Your task to perform on an android device: turn off improve location accuracy Image 0: 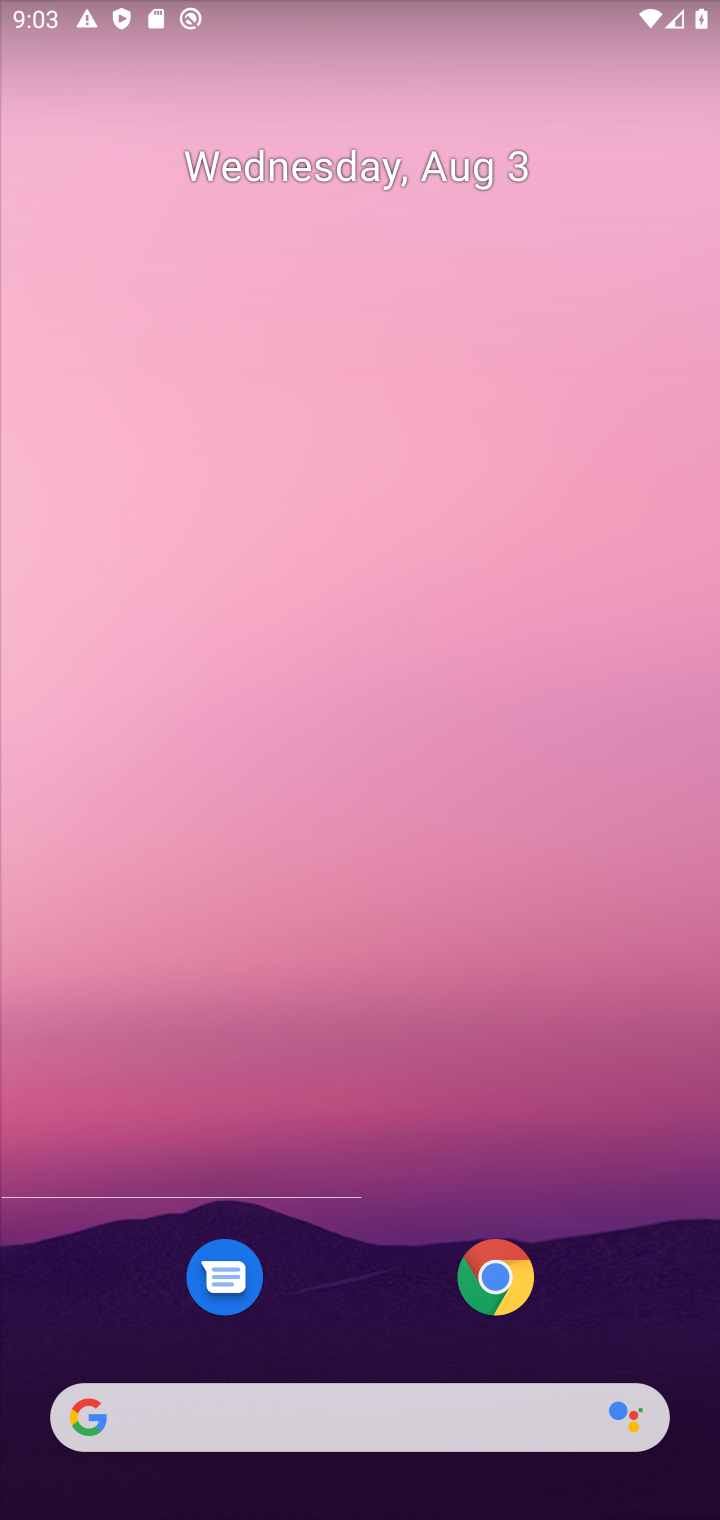
Step 0: press home button
Your task to perform on an android device: turn off improve location accuracy Image 1: 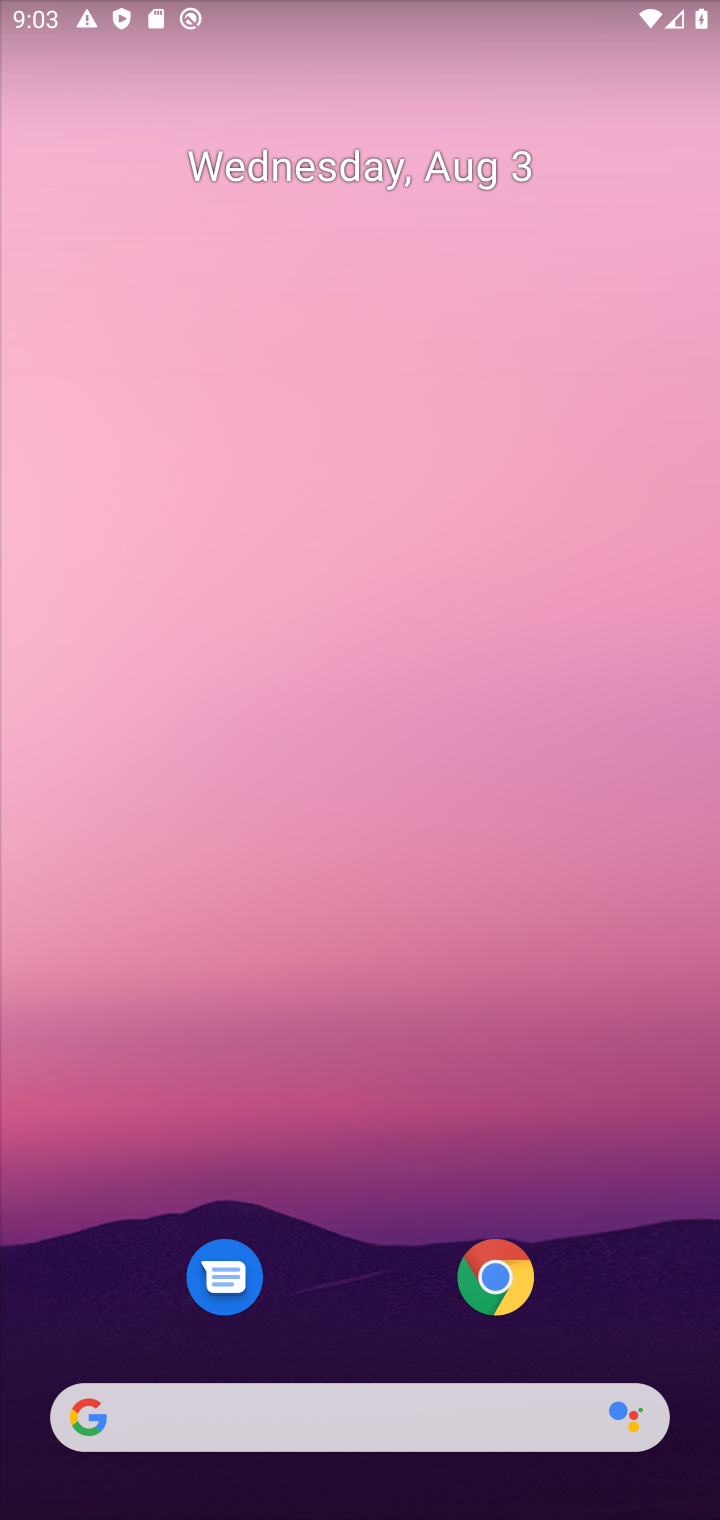
Step 1: drag from (587, 903) to (616, 291)
Your task to perform on an android device: turn off improve location accuracy Image 2: 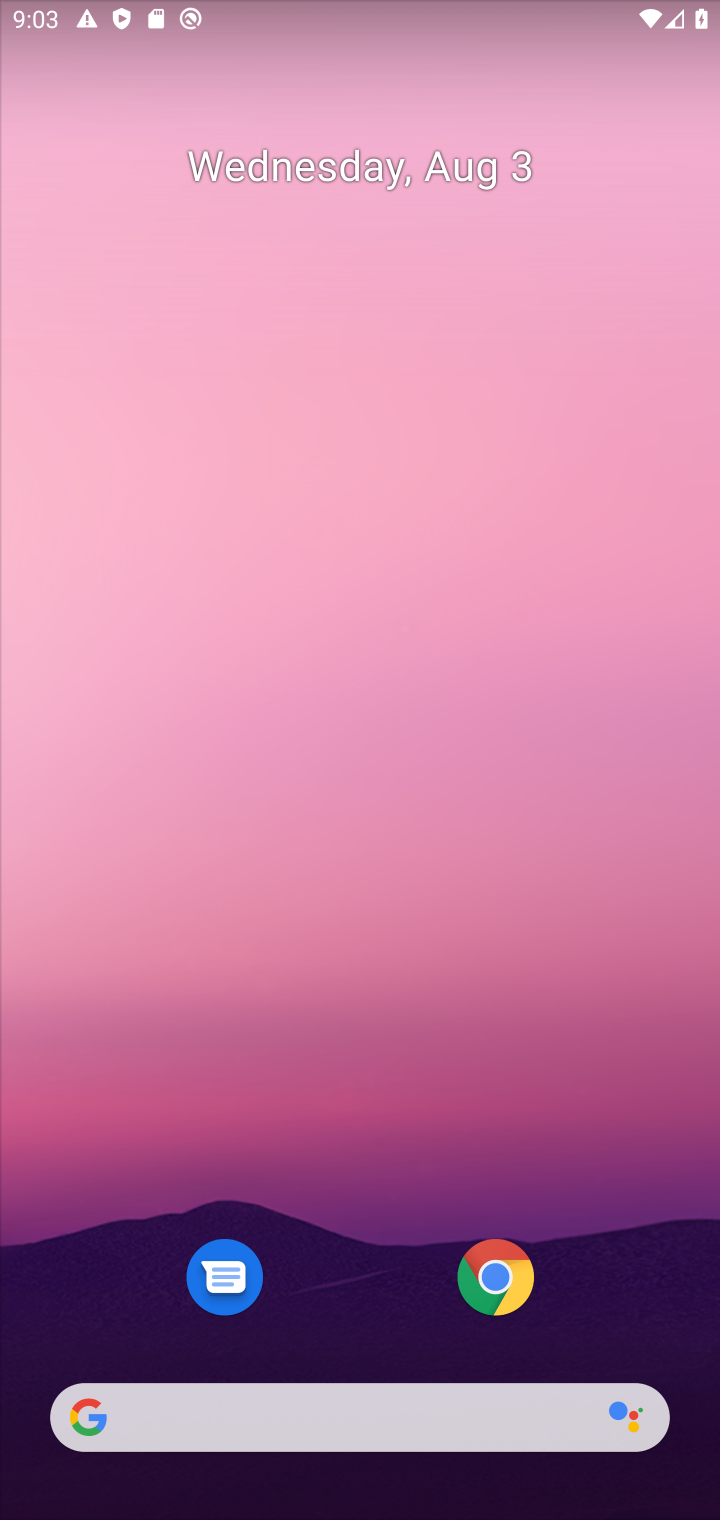
Step 2: drag from (363, 1259) to (427, 256)
Your task to perform on an android device: turn off improve location accuracy Image 3: 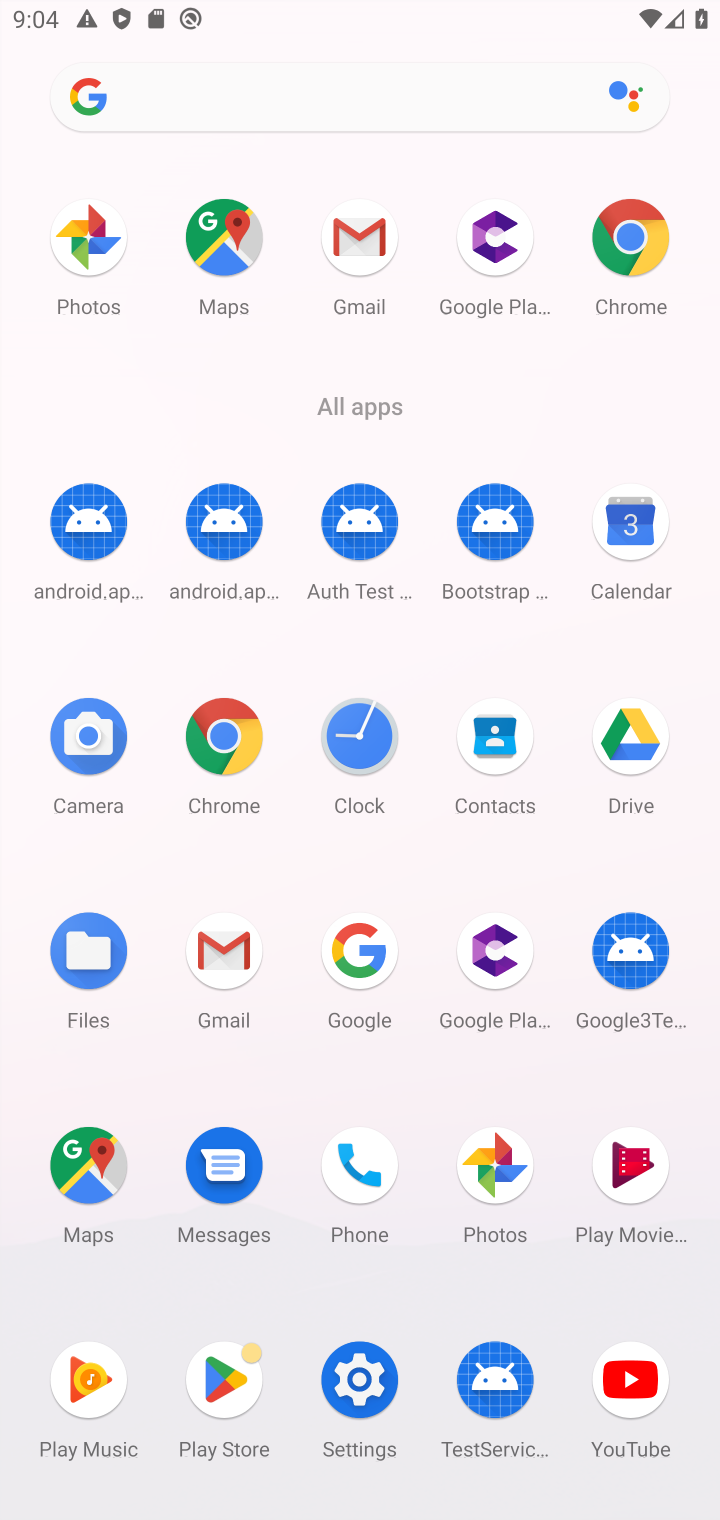
Step 3: click (365, 1401)
Your task to perform on an android device: turn off improve location accuracy Image 4: 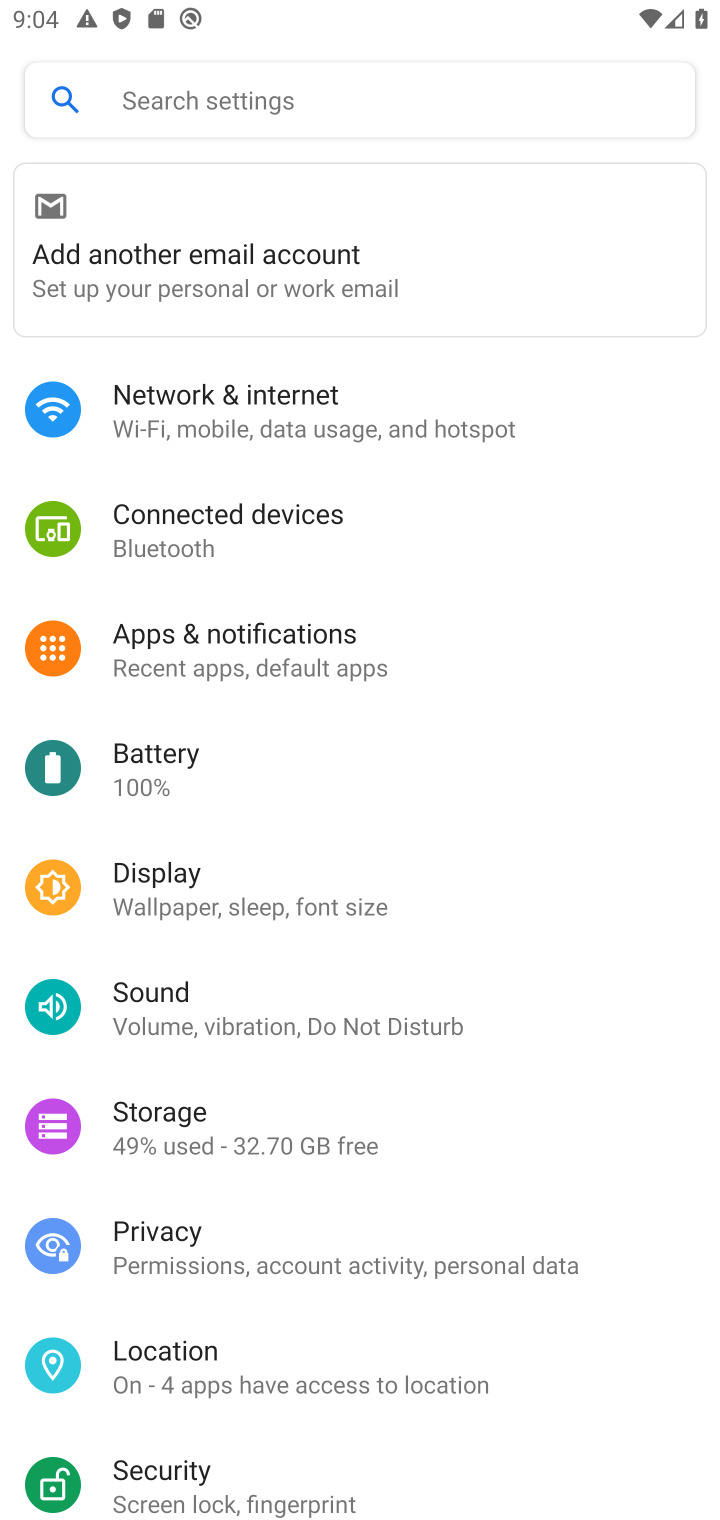
Step 4: drag from (626, 1368) to (657, 1005)
Your task to perform on an android device: turn off improve location accuracy Image 5: 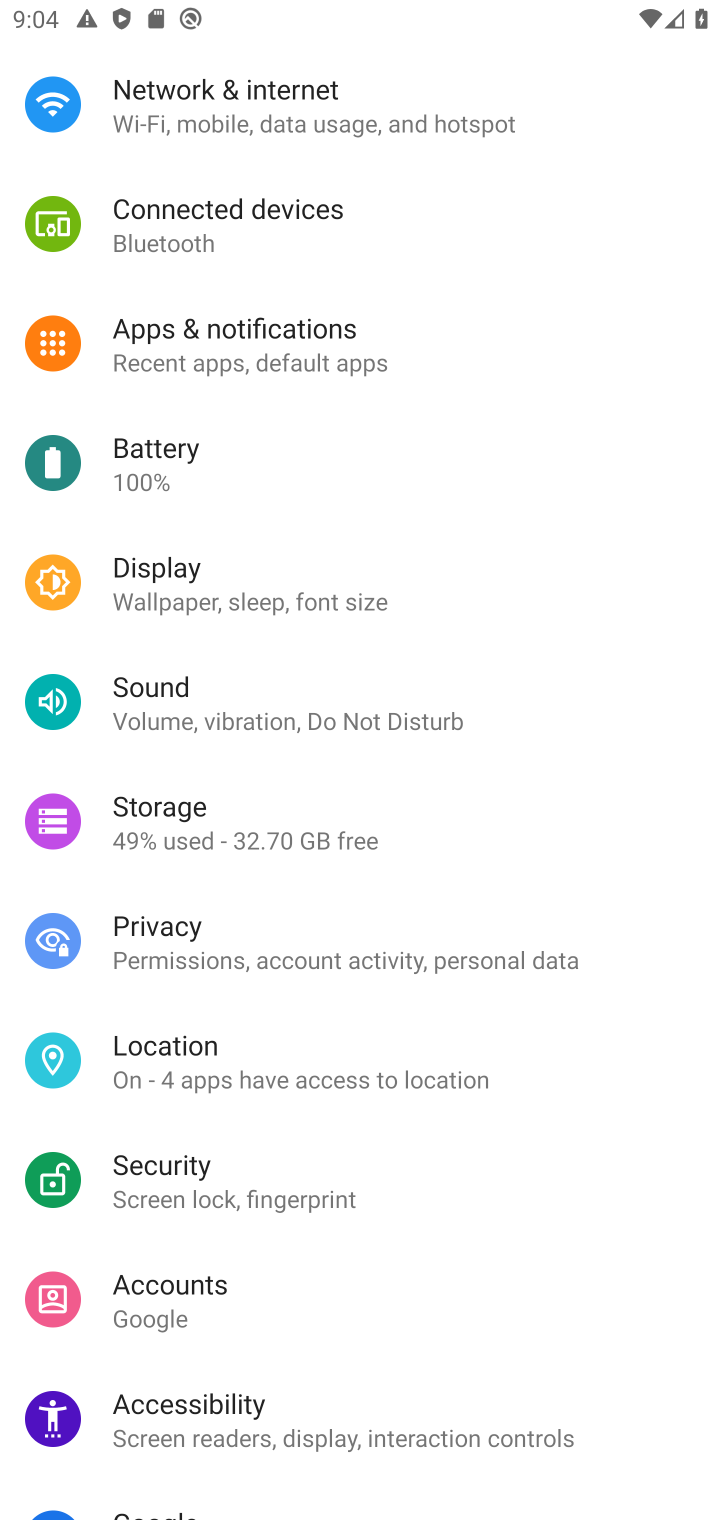
Step 5: drag from (566, 1260) to (581, 778)
Your task to perform on an android device: turn off improve location accuracy Image 6: 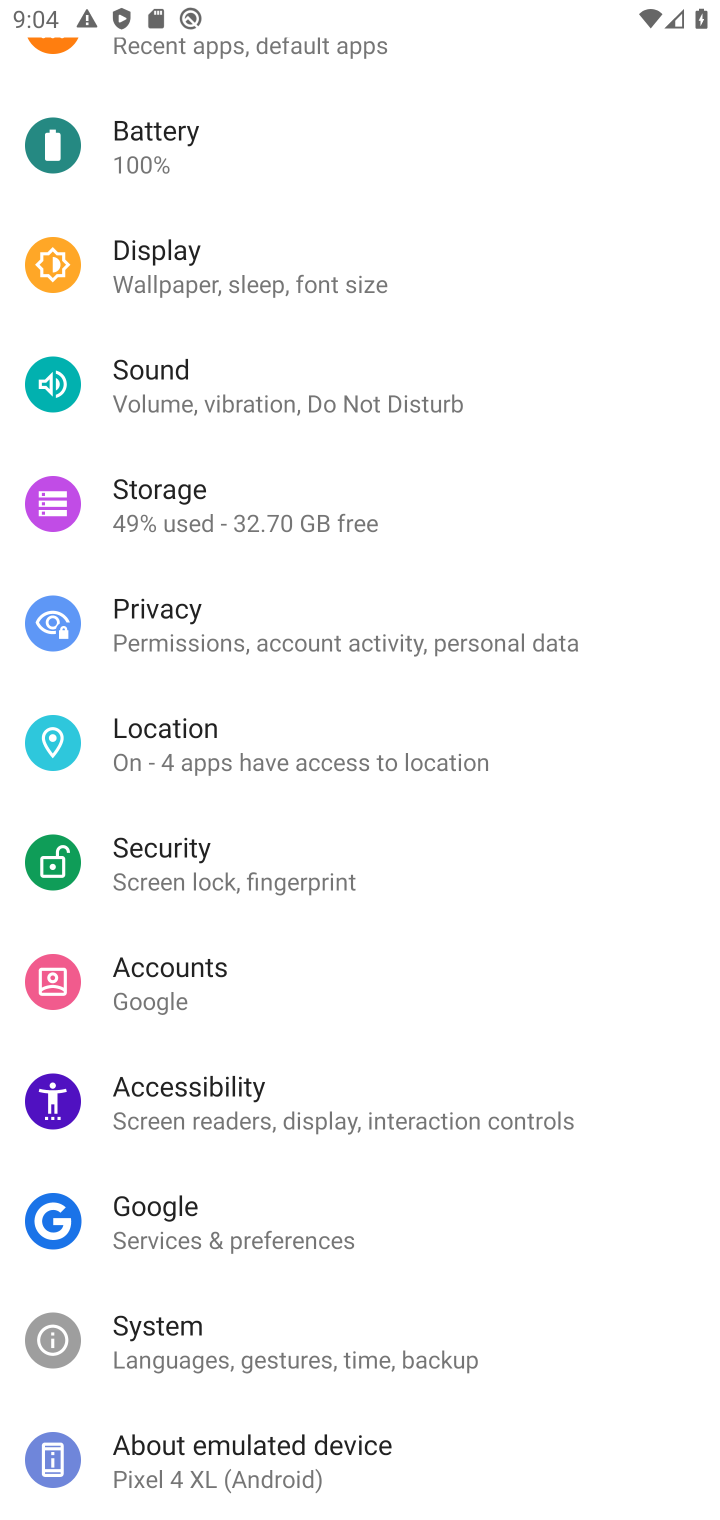
Step 6: click (447, 741)
Your task to perform on an android device: turn off improve location accuracy Image 7: 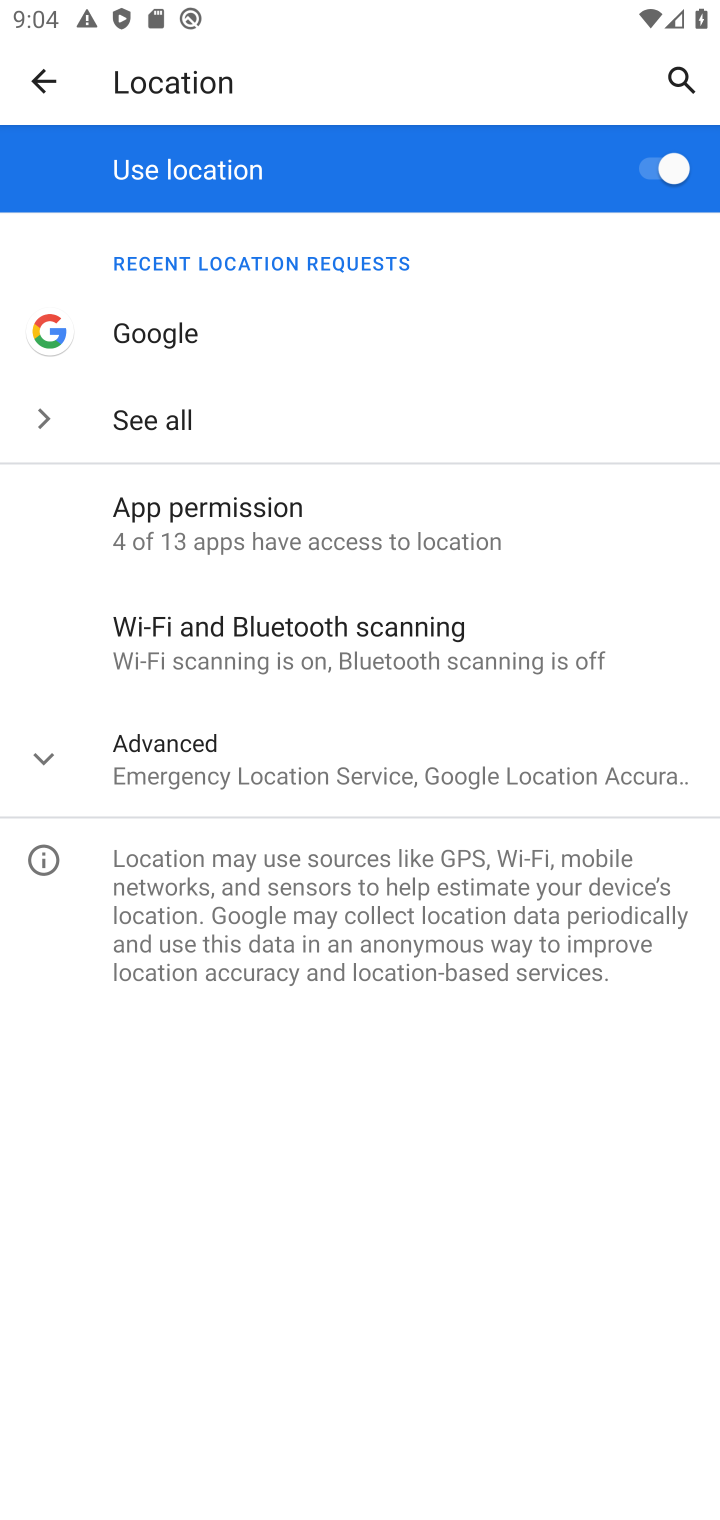
Step 7: click (399, 766)
Your task to perform on an android device: turn off improve location accuracy Image 8: 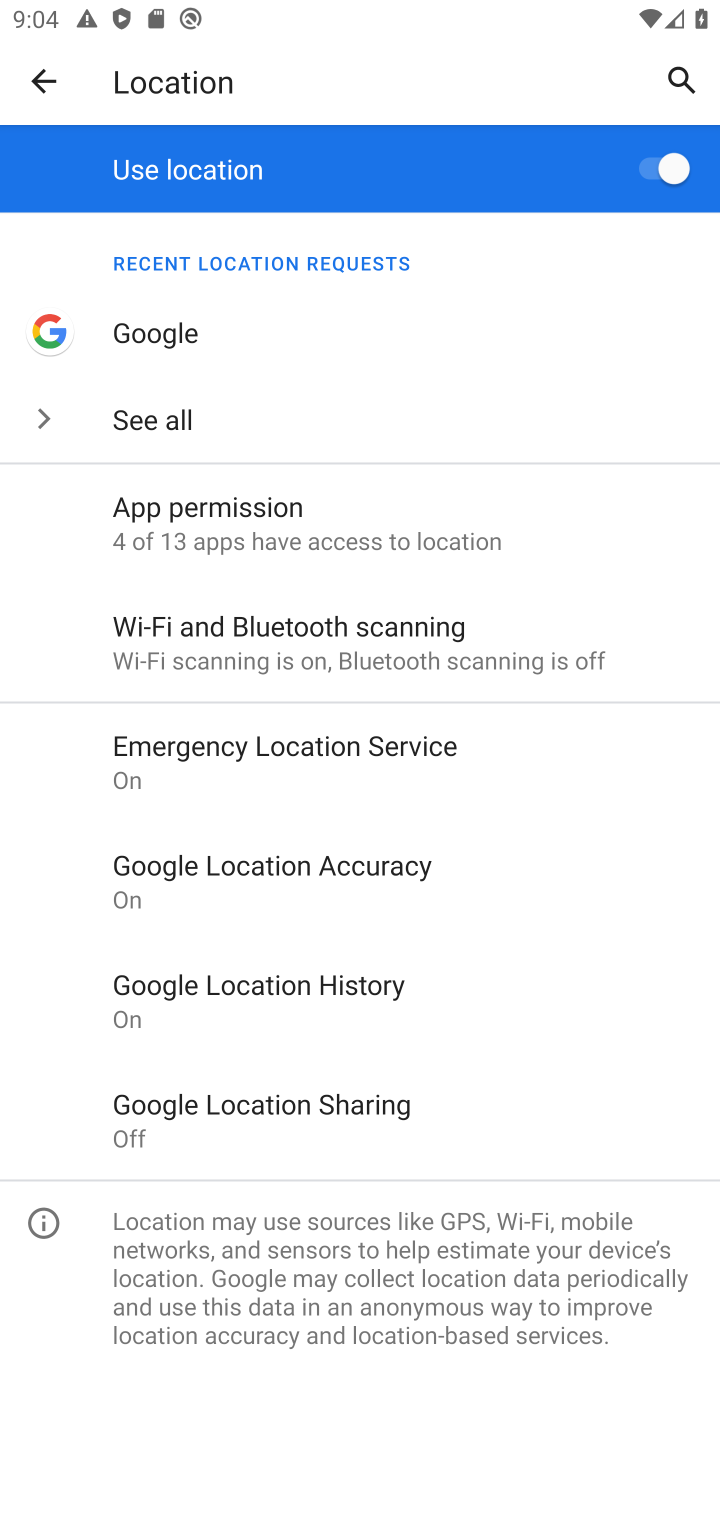
Step 8: click (330, 874)
Your task to perform on an android device: turn off improve location accuracy Image 9: 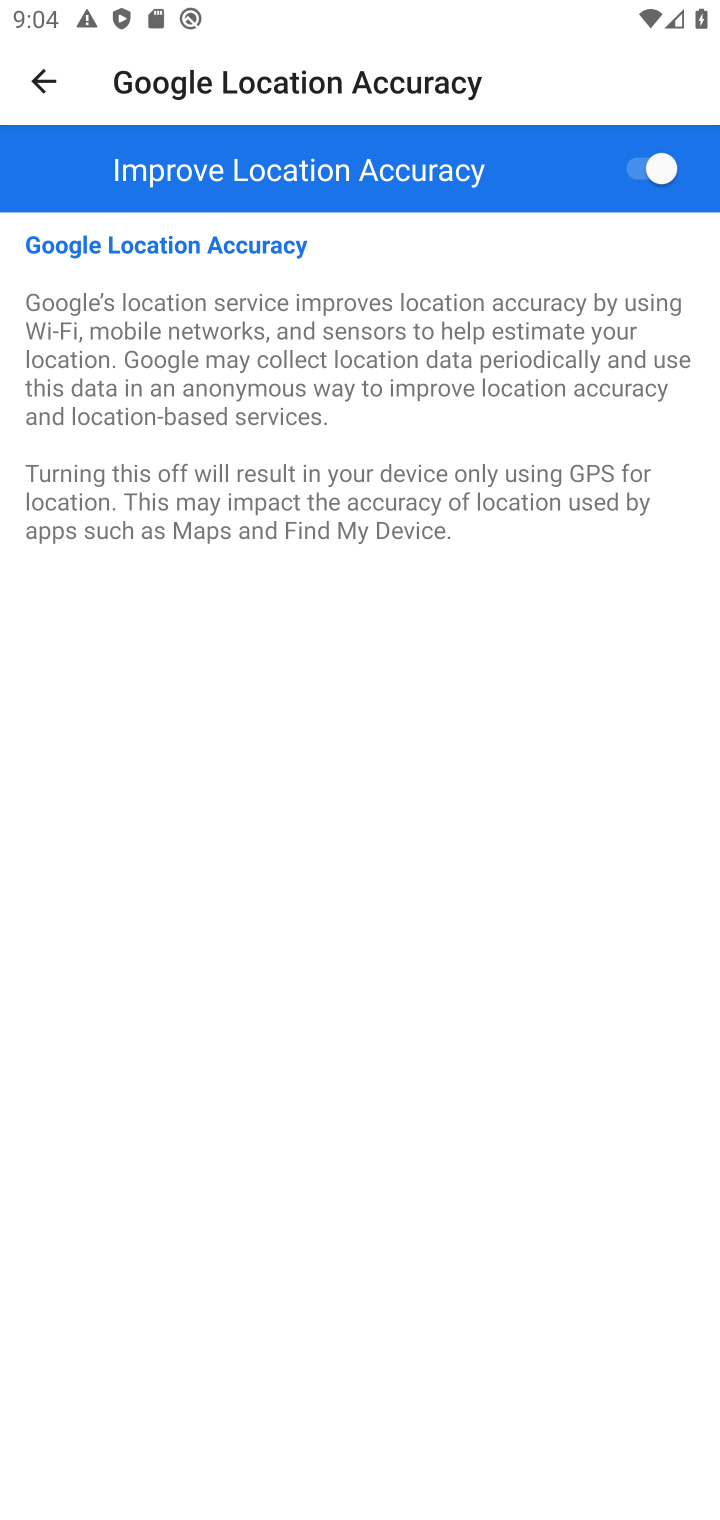
Step 9: click (656, 170)
Your task to perform on an android device: turn off improve location accuracy Image 10: 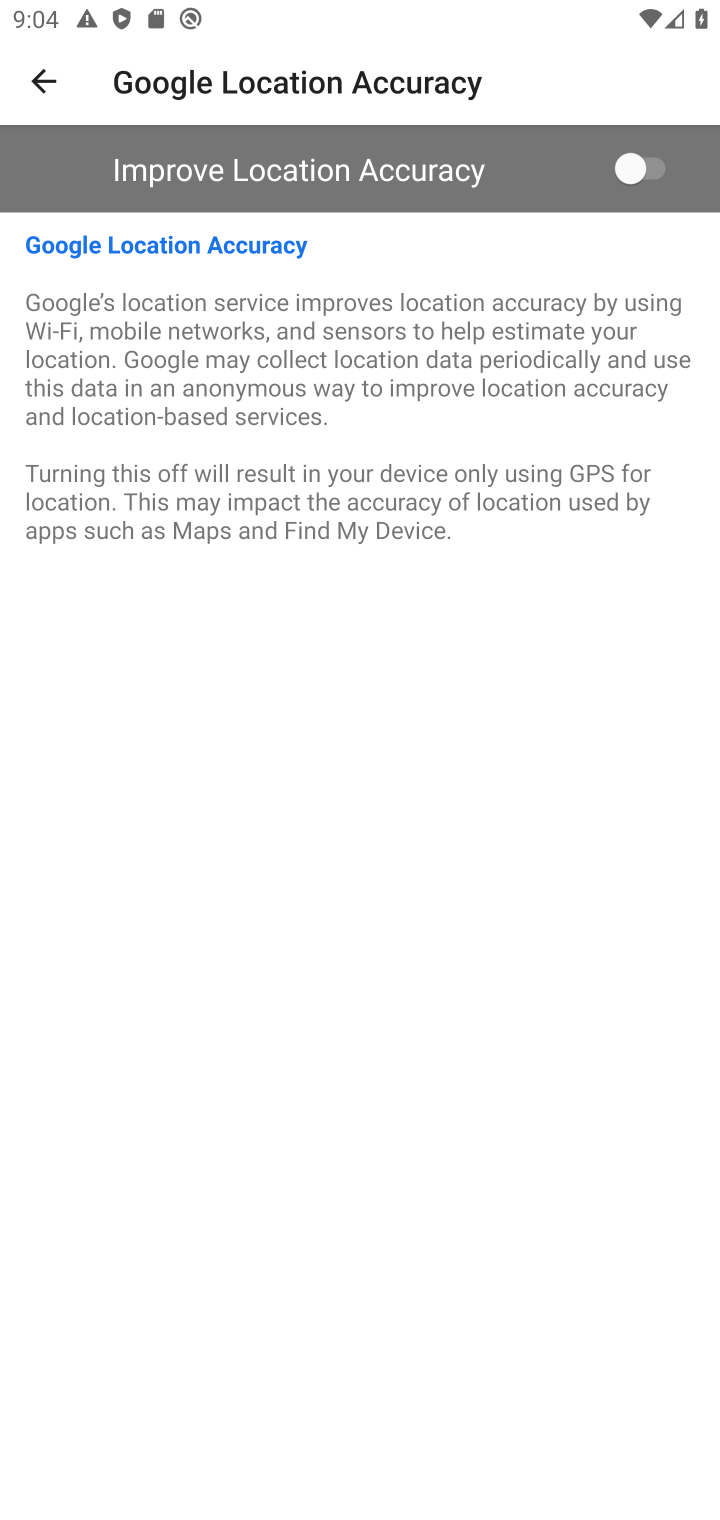
Step 10: task complete